Your task to perform on an android device: clear all cookies in the chrome app Image 0: 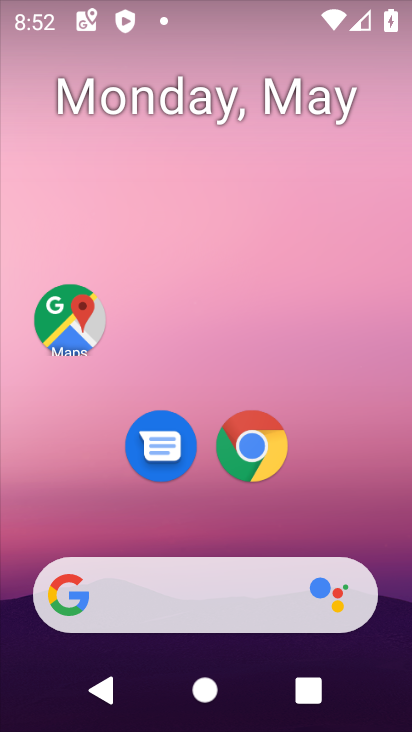
Step 0: click (249, 439)
Your task to perform on an android device: clear all cookies in the chrome app Image 1: 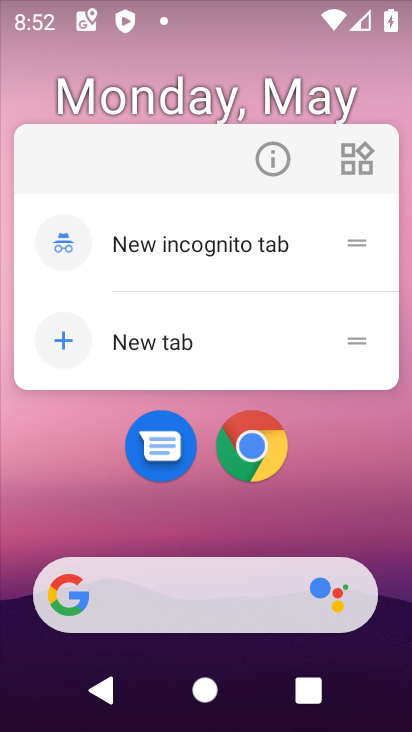
Step 1: click (249, 442)
Your task to perform on an android device: clear all cookies in the chrome app Image 2: 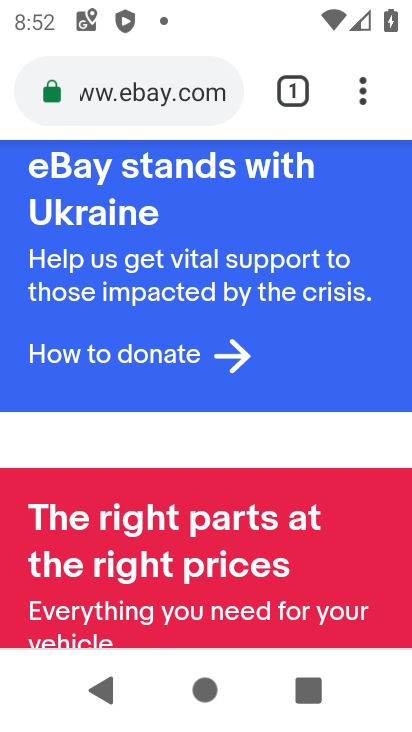
Step 2: click (364, 85)
Your task to perform on an android device: clear all cookies in the chrome app Image 3: 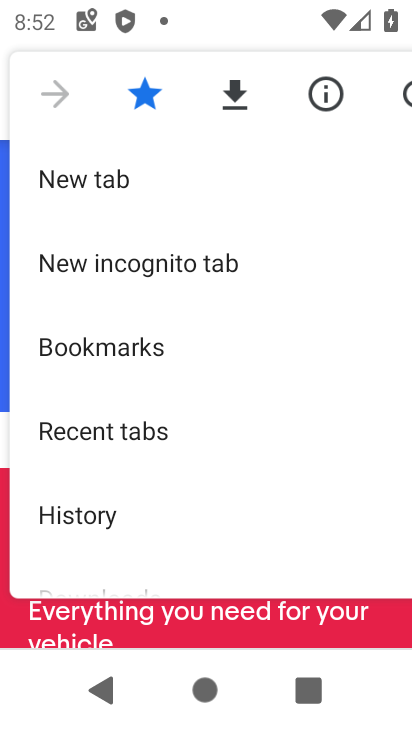
Step 3: drag from (216, 527) to (231, 118)
Your task to perform on an android device: clear all cookies in the chrome app Image 4: 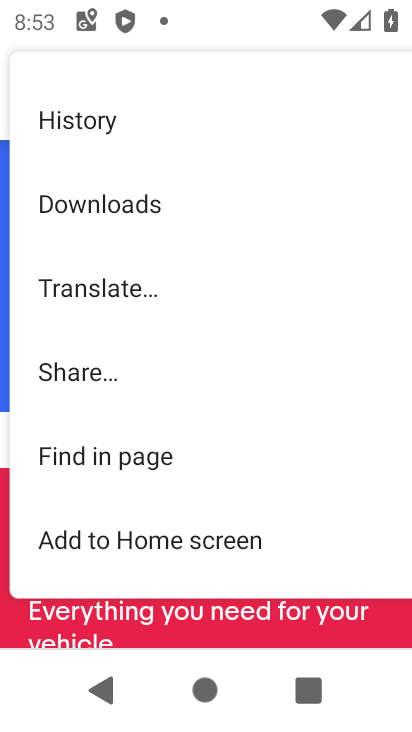
Step 4: click (133, 121)
Your task to perform on an android device: clear all cookies in the chrome app Image 5: 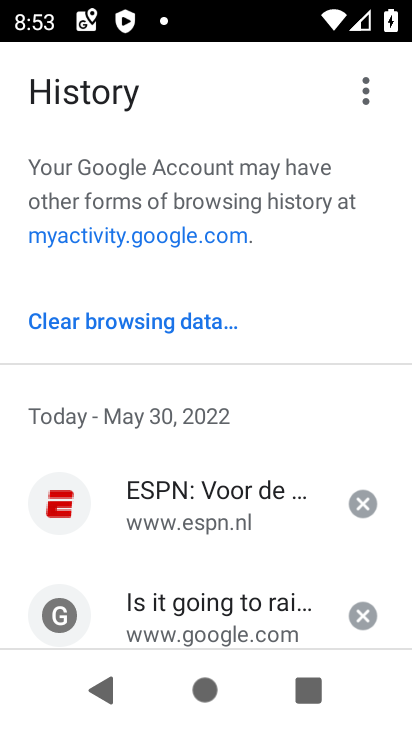
Step 5: click (132, 322)
Your task to perform on an android device: clear all cookies in the chrome app Image 6: 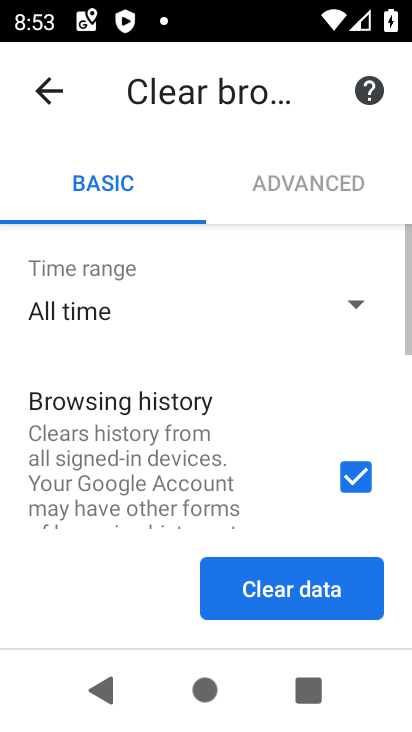
Step 6: drag from (277, 482) to (299, 202)
Your task to perform on an android device: clear all cookies in the chrome app Image 7: 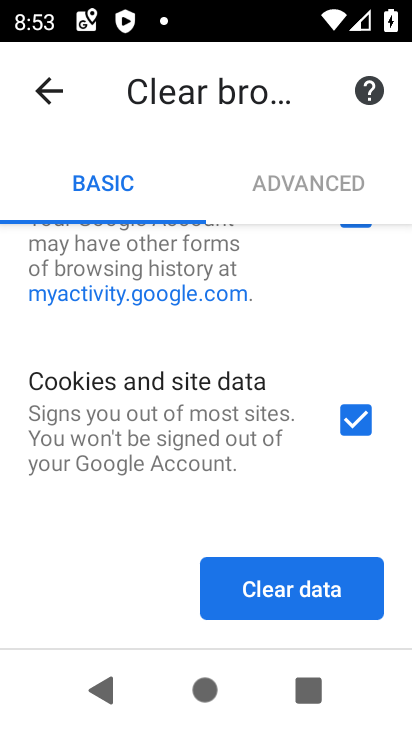
Step 7: drag from (273, 279) to (289, 434)
Your task to perform on an android device: clear all cookies in the chrome app Image 8: 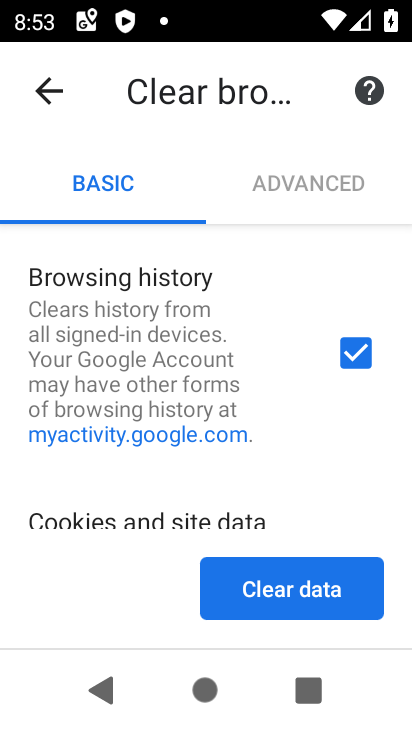
Step 8: click (350, 351)
Your task to perform on an android device: clear all cookies in the chrome app Image 9: 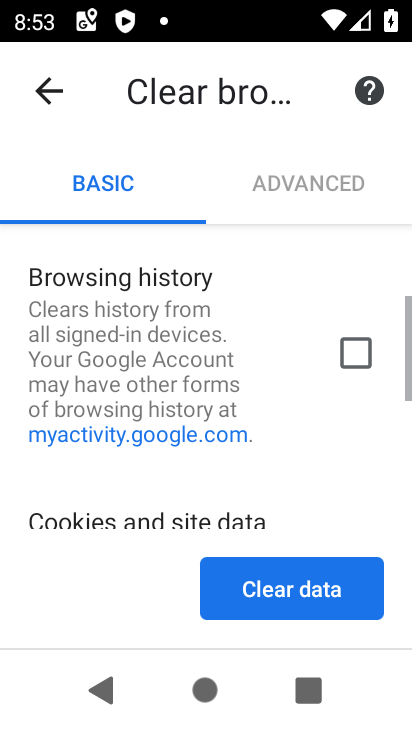
Step 9: drag from (262, 477) to (273, 148)
Your task to perform on an android device: clear all cookies in the chrome app Image 10: 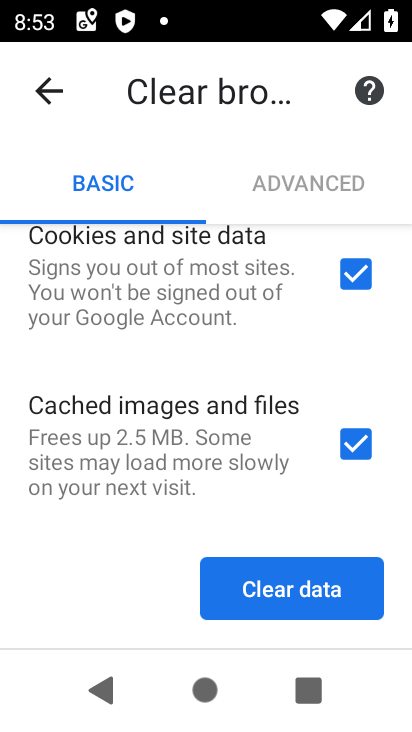
Step 10: click (355, 441)
Your task to perform on an android device: clear all cookies in the chrome app Image 11: 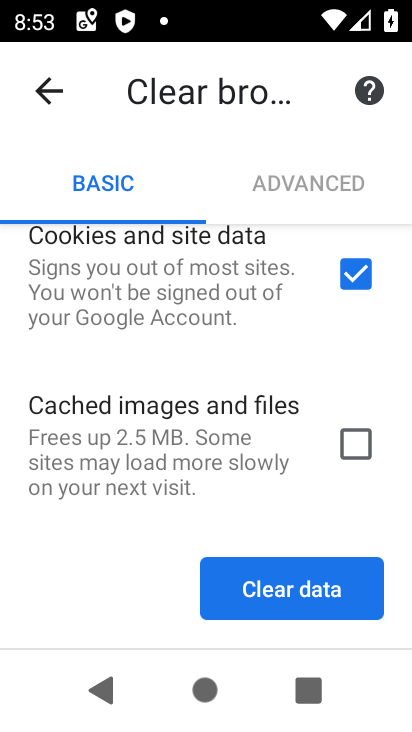
Step 11: click (291, 595)
Your task to perform on an android device: clear all cookies in the chrome app Image 12: 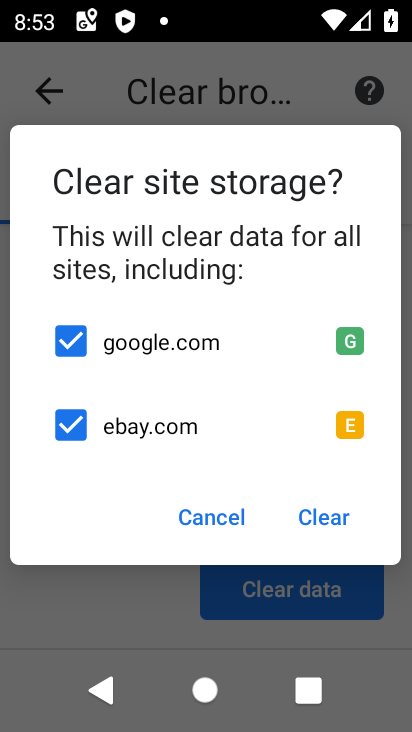
Step 12: click (304, 521)
Your task to perform on an android device: clear all cookies in the chrome app Image 13: 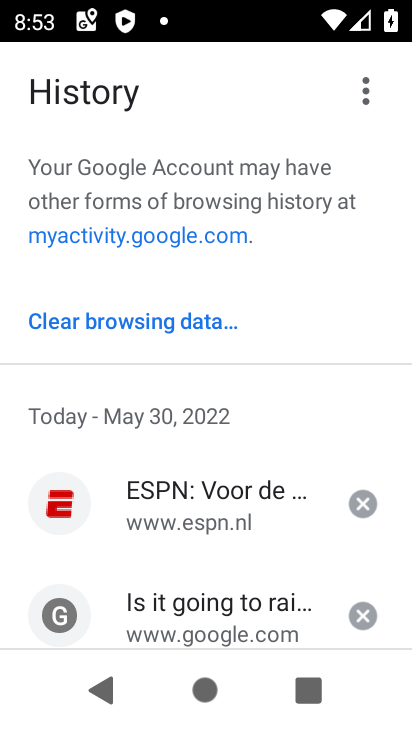
Step 13: task complete